Your task to perform on an android device: Go to display settings Image 0: 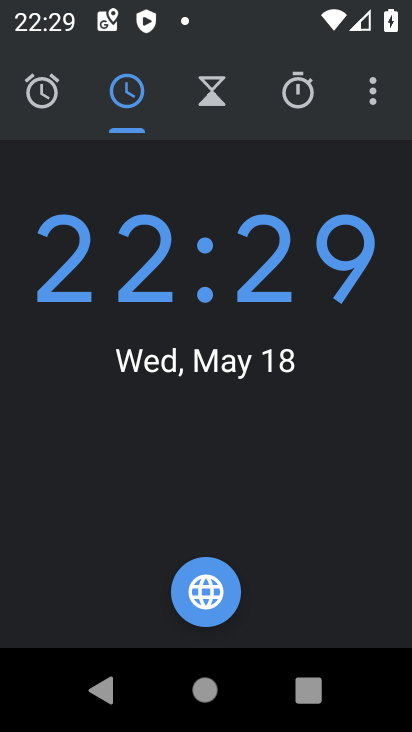
Step 0: press home button
Your task to perform on an android device: Go to display settings Image 1: 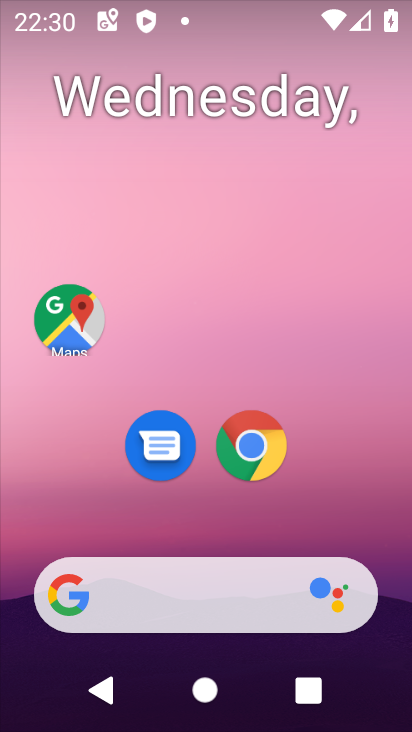
Step 1: drag from (308, 499) to (313, 178)
Your task to perform on an android device: Go to display settings Image 2: 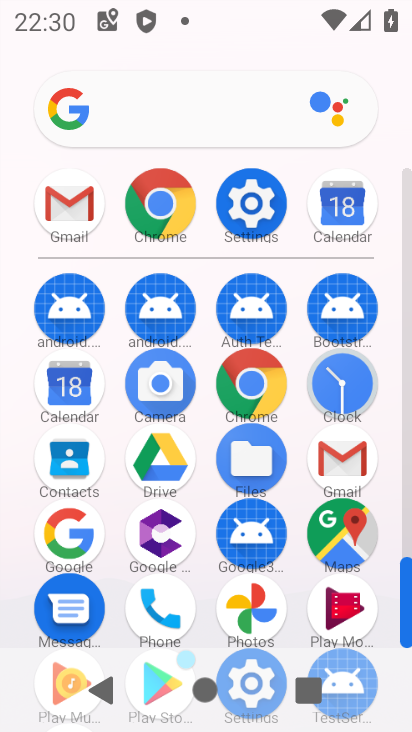
Step 2: click (257, 193)
Your task to perform on an android device: Go to display settings Image 3: 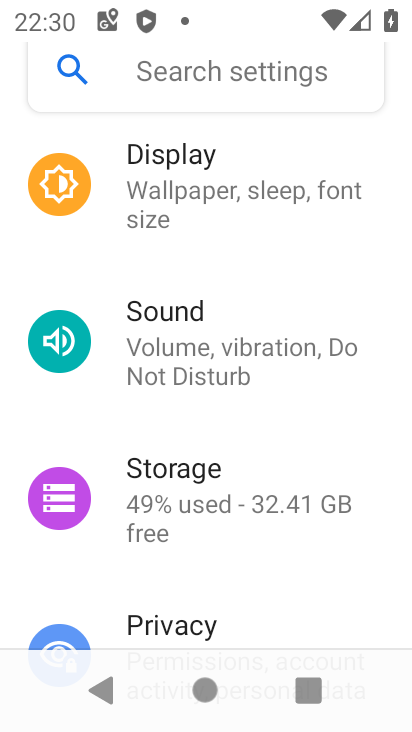
Step 3: click (196, 191)
Your task to perform on an android device: Go to display settings Image 4: 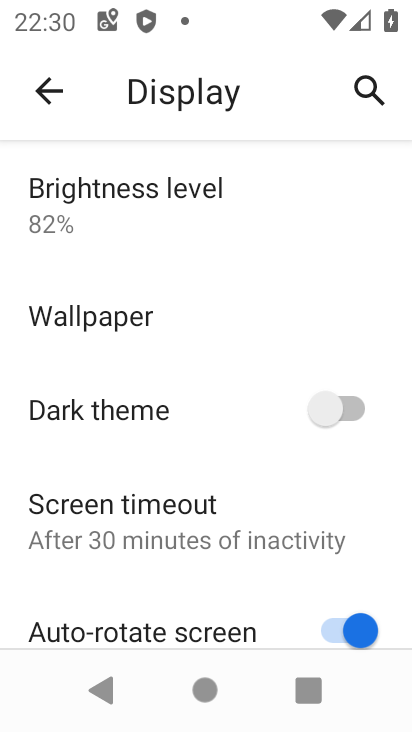
Step 4: task complete